Your task to perform on an android device: delete the emails in spam in the gmail app Image 0: 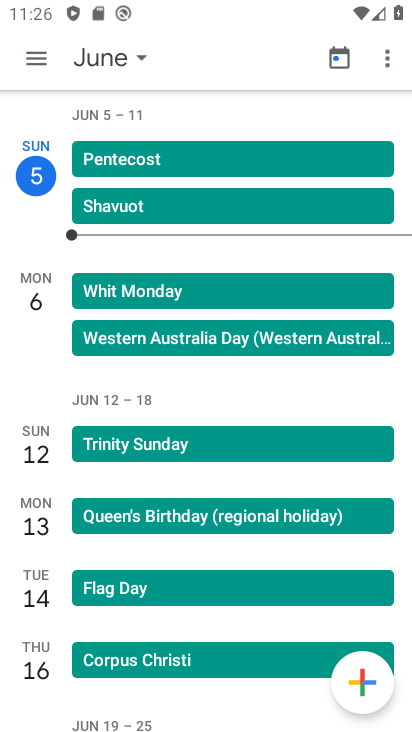
Step 0: press home button
Your task to perform on an android device: delete the emails in spam in the gmail app Image 1: 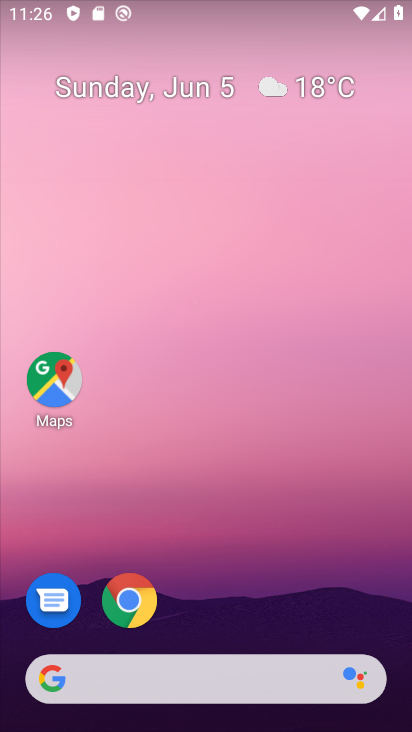
Step 1: drag from (132, 603) to (129, 74)
Your task to perform on an android device: delete the emails in spam in the gmail app Image 2: 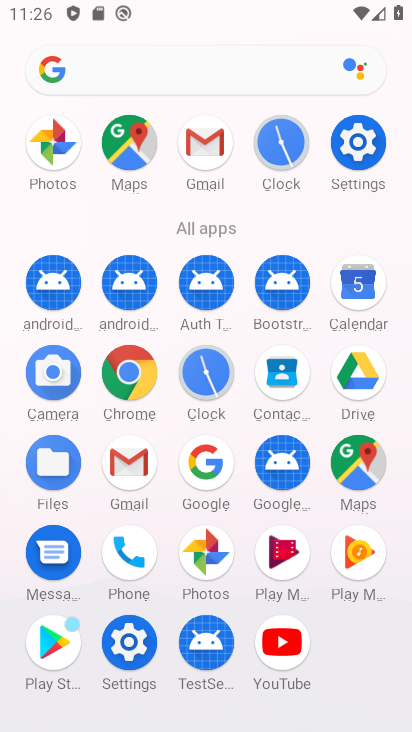
Step 2: click (136, 471)
Your task to perform on an android device: delete the emails in spam in the gmail app Image 3: 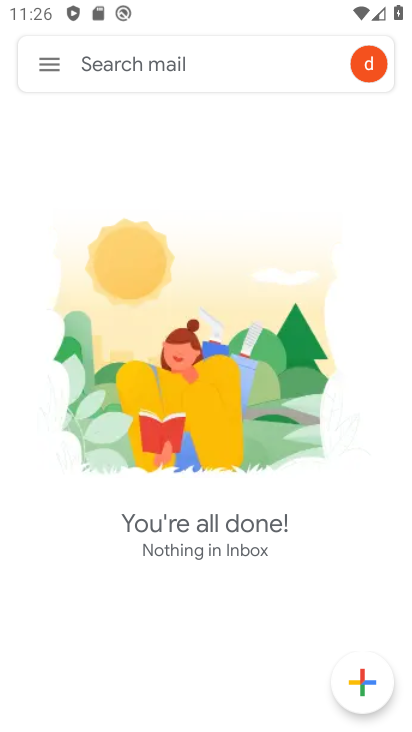
Step 3: click (56, 71)
Your task to perform on an android device: delete the emails in spam in the gmail app Image 4: 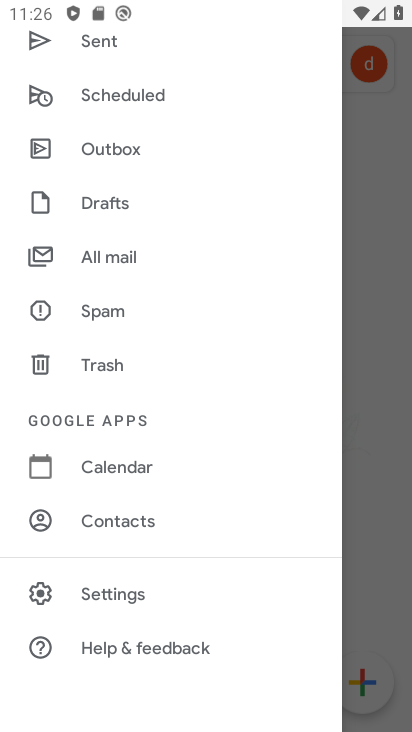
Step 4: click (103, 310)
Your task to perform on an android device: delete the emails in spam in the gmail app Image 5: 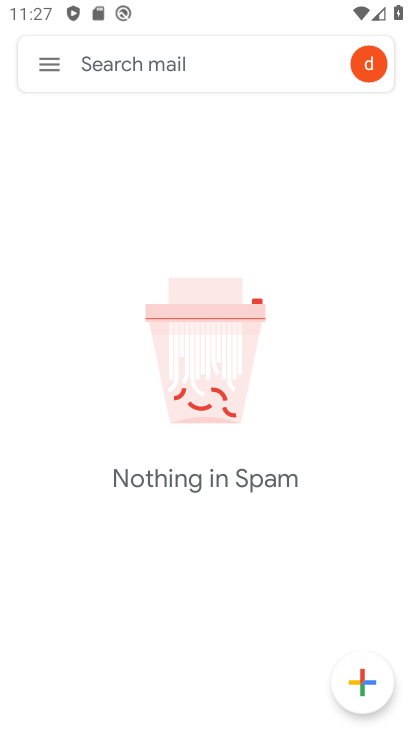
Step 5: task complete